Your task to perform on an android device: Open Google Chrome and open the bookmarks view Image 0: 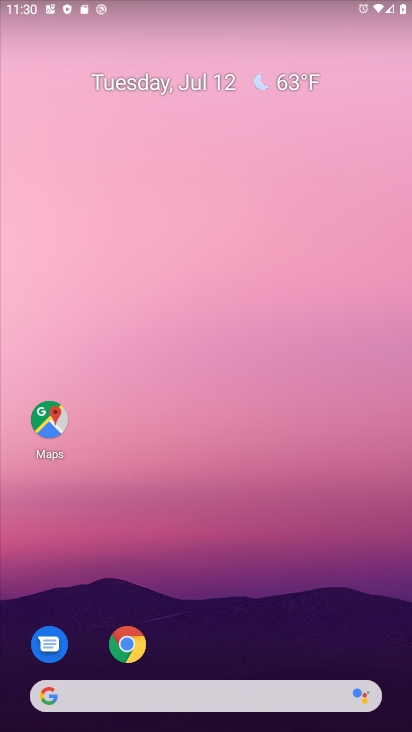
Step 0: click (128, 644)
Your task to perform on an android device: Open Google Chrome and open the bookmarks view Image 1: 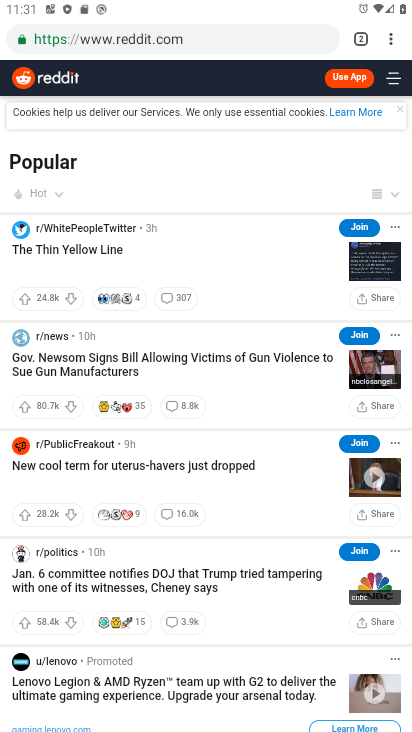
Step 1: click (390, 38)
Your task to perform on an android device: Open Google Chrome and open the bookmarks view Image 2: 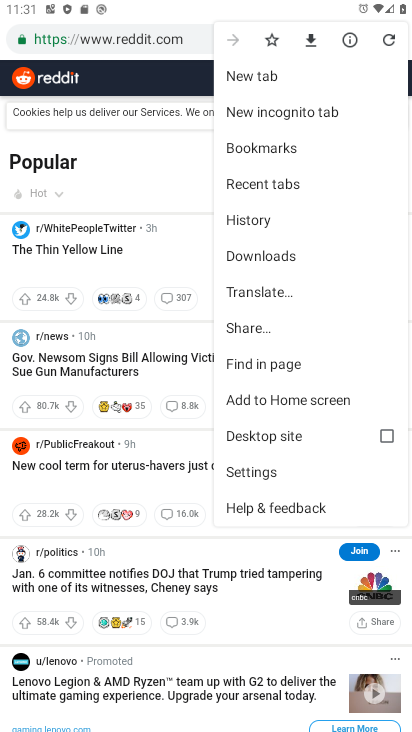
Step 2: click (286, 149)
Your task to perform on an android device: Open Google Chrome and open the bookmarks view Image 3: 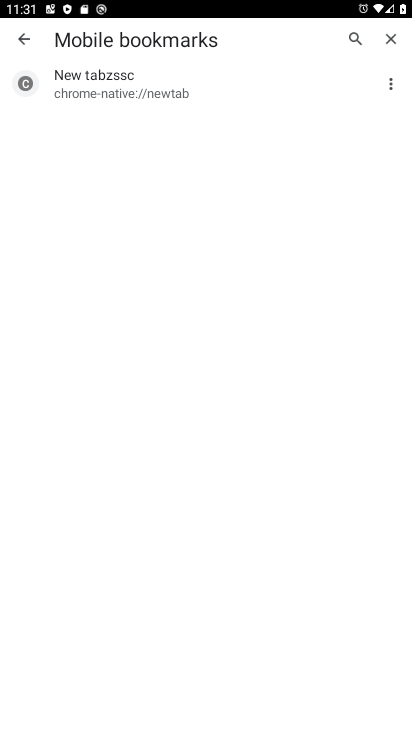
Step 3: task complete